Your task to perform on an android device: Open the calendar app, open the side menu, and click the "Day" option Image 0: 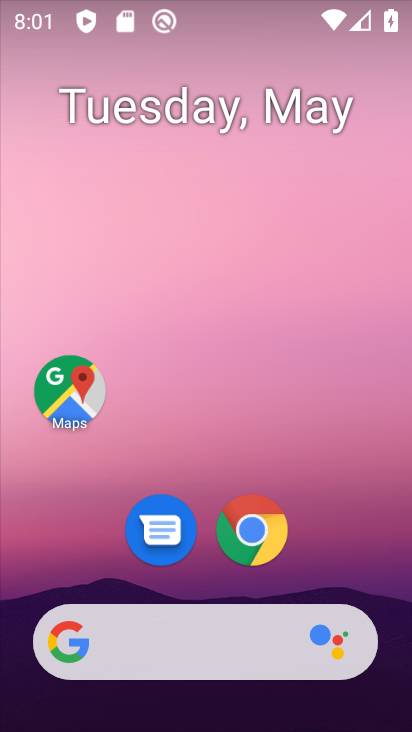
Step 0: drag from (208, 525) to (208, 123)
Your task to perform on an android device: Open the calendar app, open the side menu, and click the "Day" option Image 1: 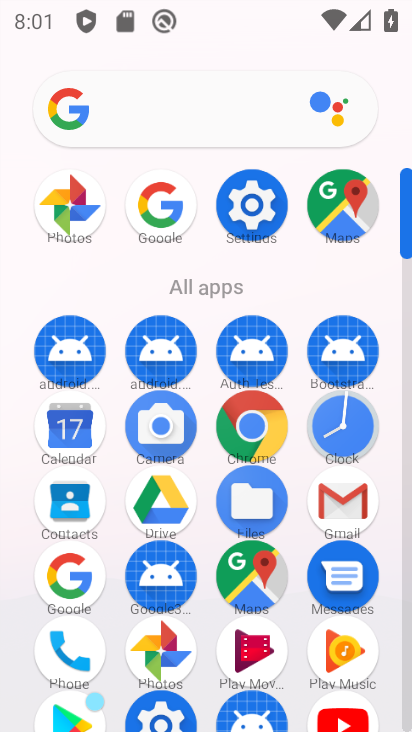
Step 1: click (59, 427)
Your task to perform on an android device: Open the calendar app, open the side menu, and click the "Day" option Image 2: 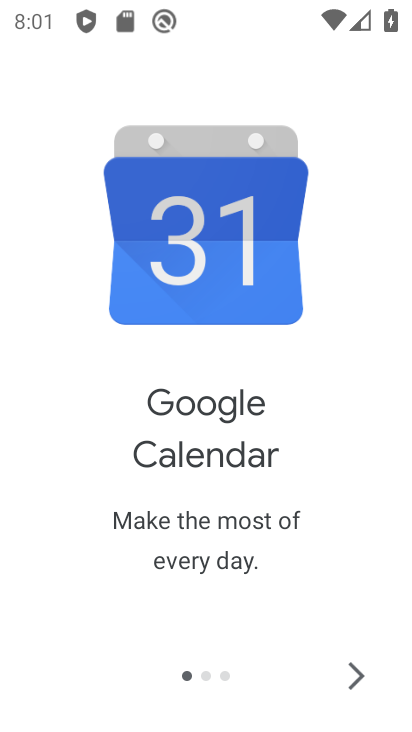
Step 2: click (354, 667)
Your task to perform on an android device: Open the calendar app, open the side menu, and click the "Day" option Image 3: 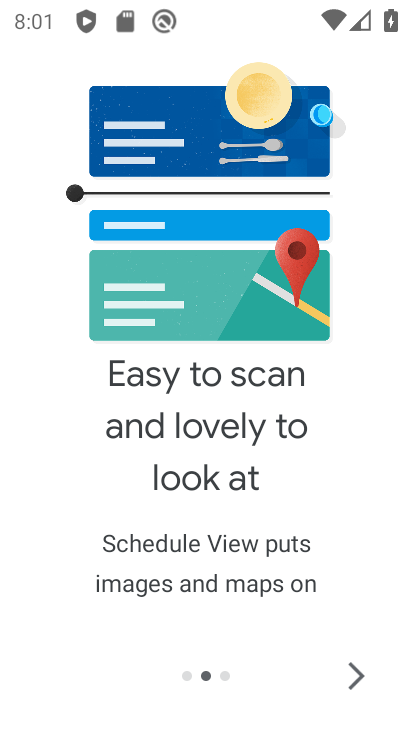
Step 3: click (354, 667)
Your task to perform on an android device: Open the calendar app, open the side menu, and click the "Day" option Image 4: 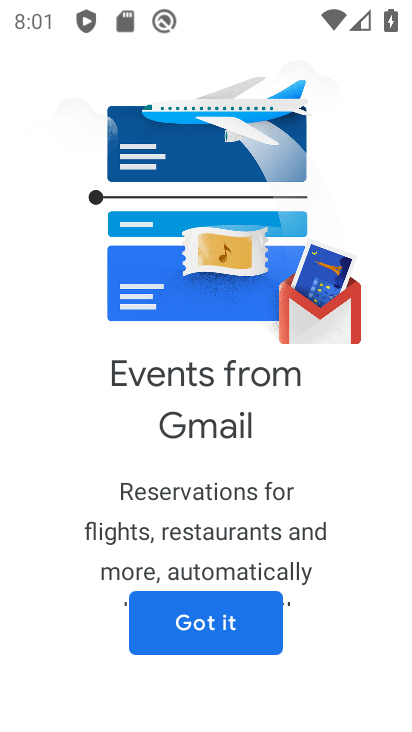
Step 4: click (354, 666)
Your task to perform on an android device: Open the calendar app, open the side menu, and click the "Day" option Image 5: 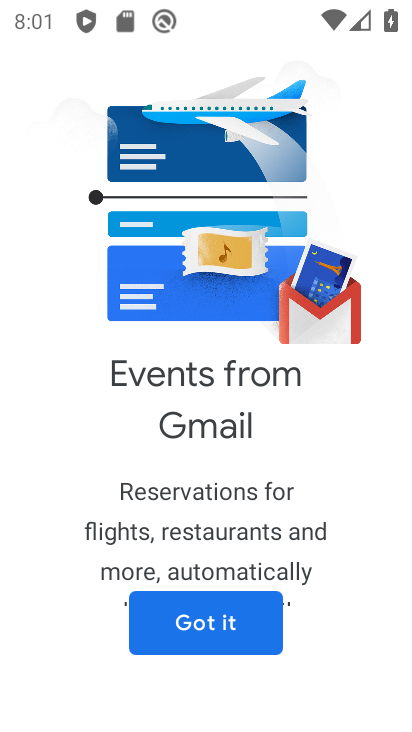
Step 5: click (214, 627)
Your task to perform on an android device: Open the calendar app, open the side menu, and click the "Day" option Image 6: 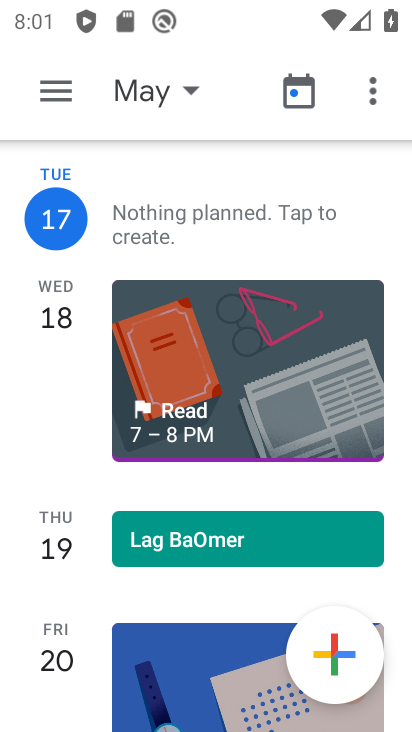
Step 6: click (53, 91)
Your task to perform on an android device: Open the calendar app, open the side menu, and click the "Day" option Image 7: 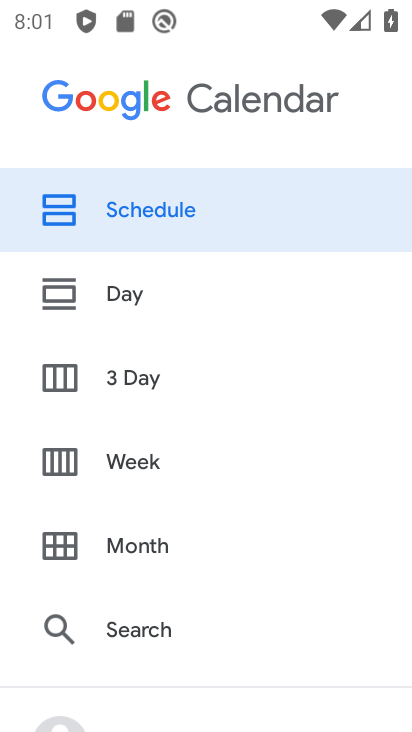
Step 7: click (149, 299)
Your task to perform on an android device: Open the calendar app, open the side menu, and click the "Day" option Image 8: 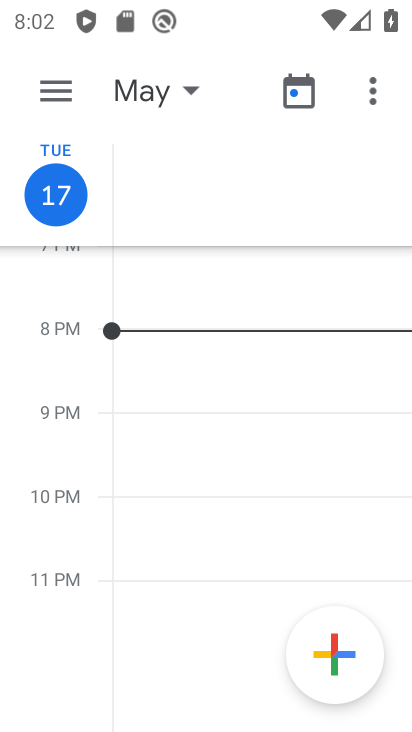
Step 8: task complete